Your task to perform on an android device: Open internet settings Image 0: 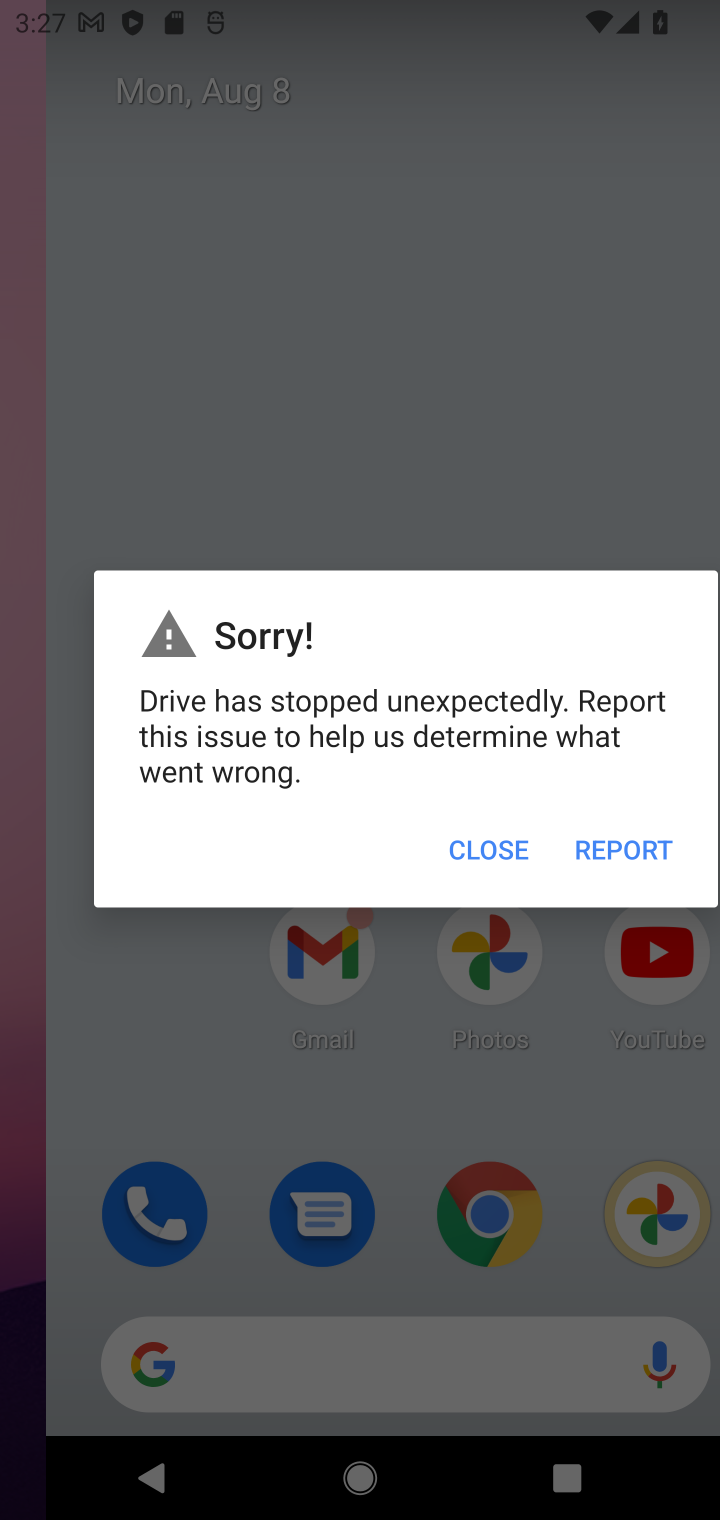
Step 0: press home button
Your task to perform on an android device: Open internet settings Image 1: 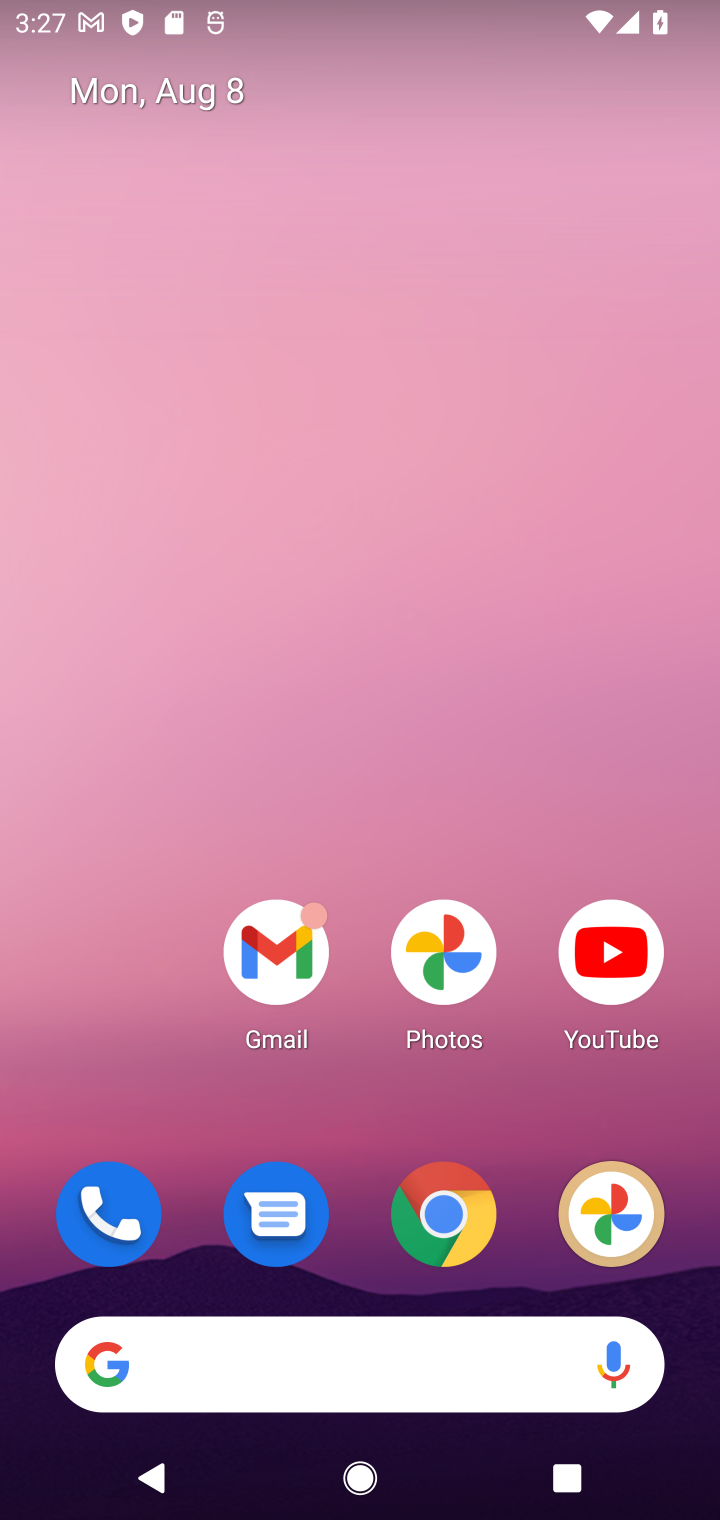
Step 1: drag from (353, 1247) to (313, 331)
Your task to perform on an android device: Open internet settings Image 2: 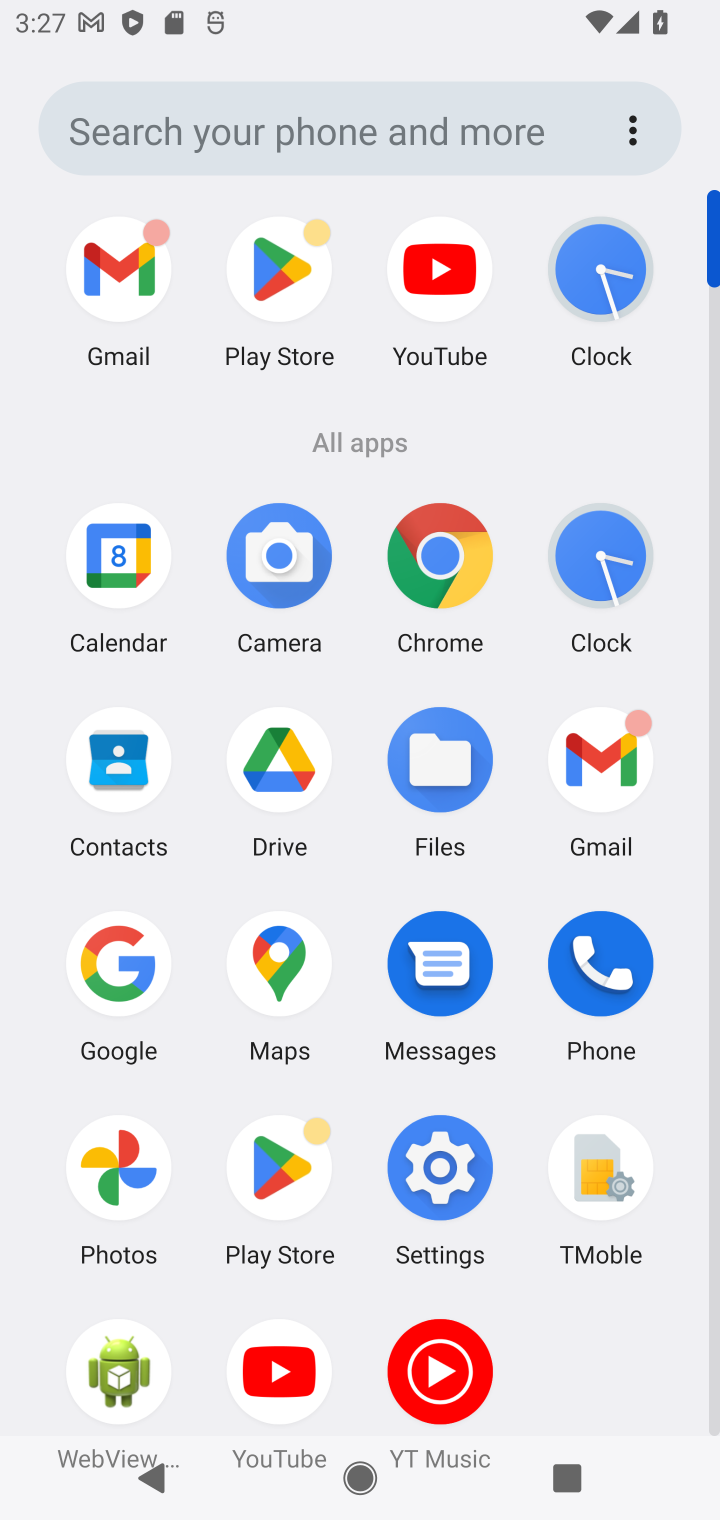
Step 2: click (453, 1184)
Your task to perform on an android device: Open internet settings Image 3: 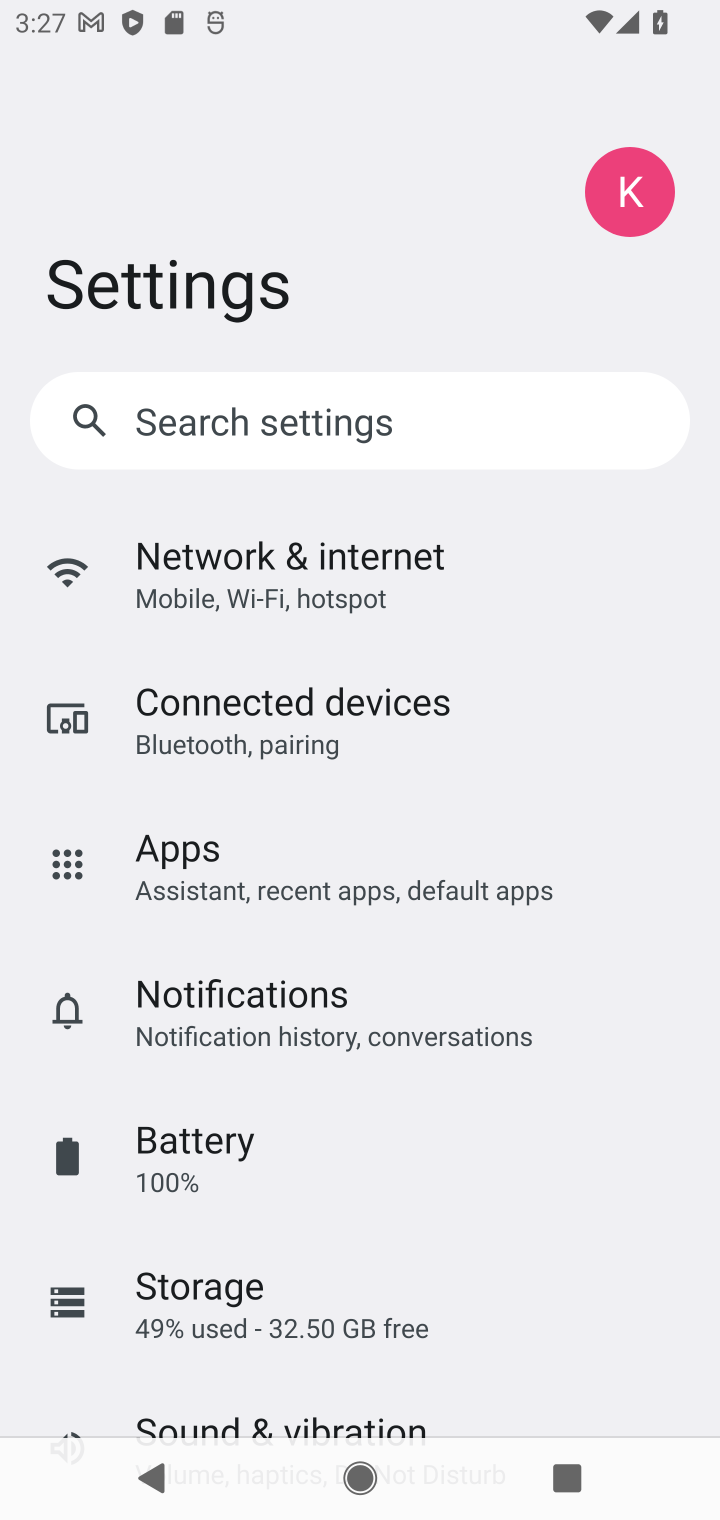
Step 3: click (259, 555)
Your task to perform on an android device: Open internet settings Image 4: 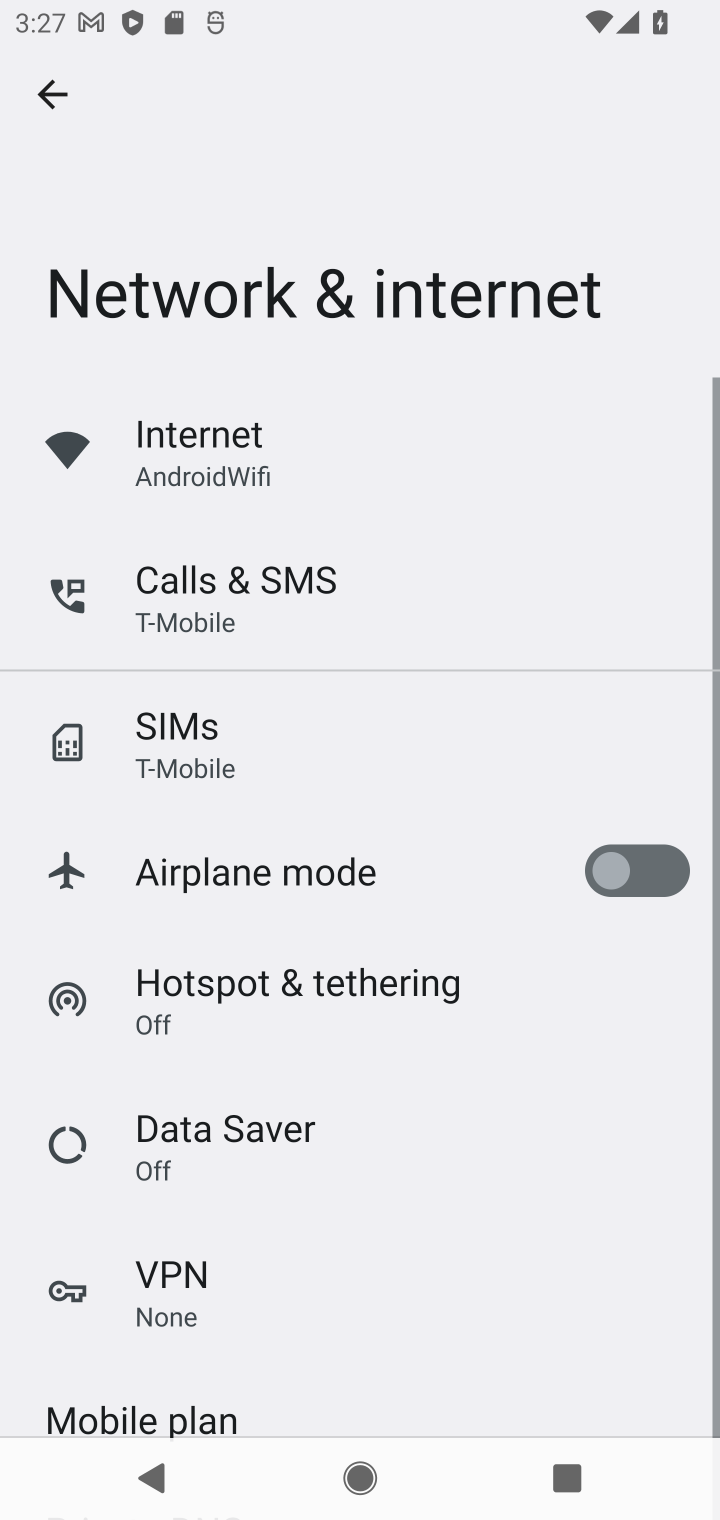
Step 4: task complete